Your task to perform on an android device: toggle notifications settings in the gmail app Image 0: 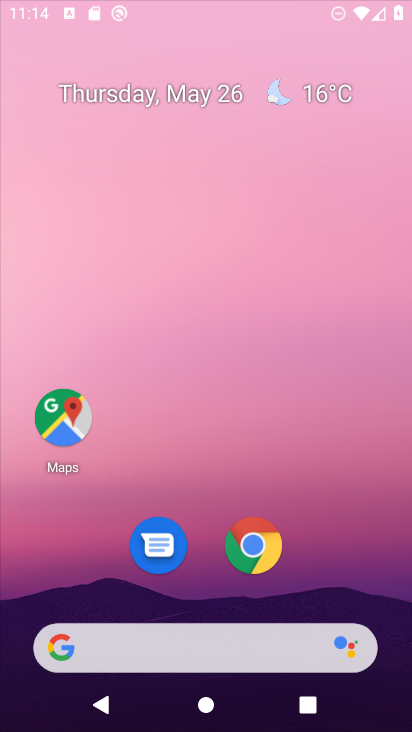
Step 0: press home button
Your task to perform on an android device: toggle notifications settings in the gmail app Image 1: 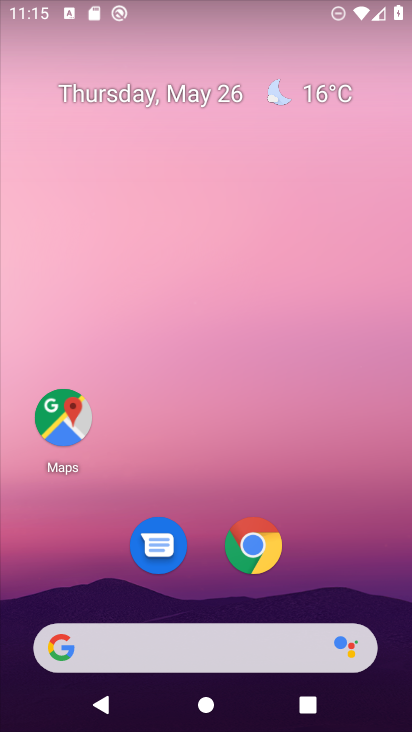
Step 1: drag from (329, 616) to (251, 89)
Your task to perform on an android device: toggle notifications settings in the gmail app Image 2: 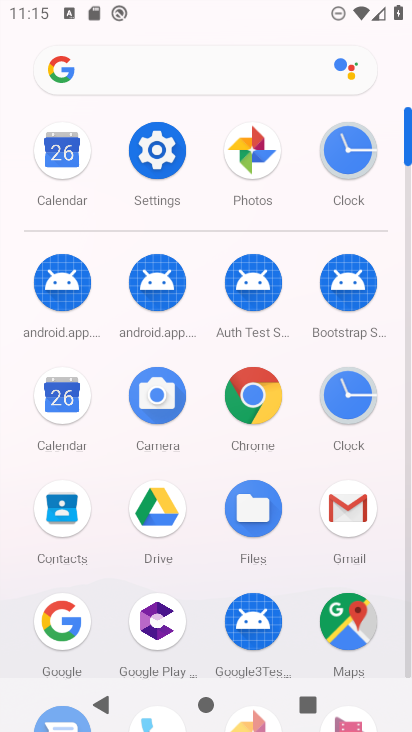
Step 2: click (359, 511)
Your task to perform on an android device: toggle notifications settings in the gmail app Image 3: 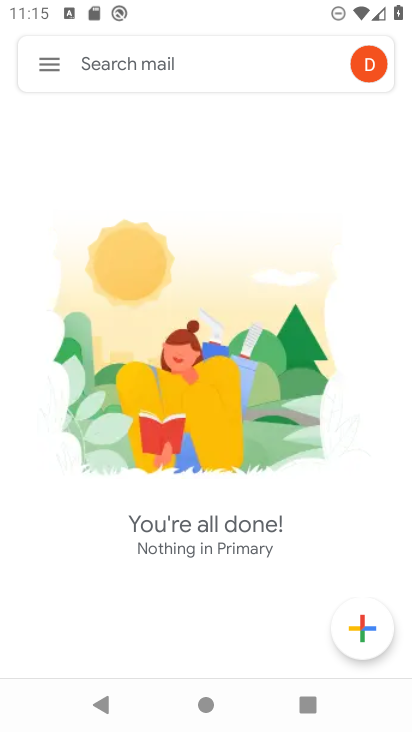
Step 3: click (48, 76)
Your task to perform on an android device: toggle notifications settings in the gmail app Image 4: 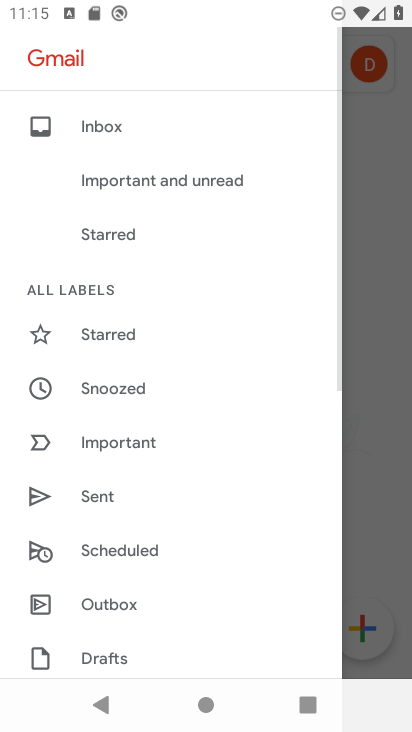
Step 4: drag from (209, 602) to (180, 222)
Your task to perform on an android device: toggle notifications settings in the gmail app Image 5: 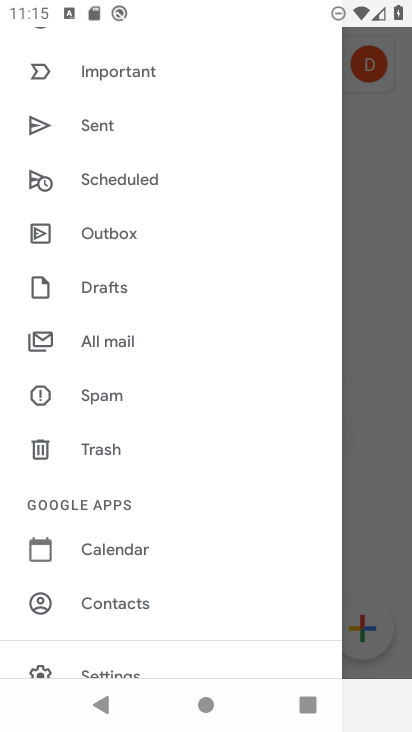
Step 5: click (124, 662)
Your task to perform on an android device: toggle notifications settings in the gmail app Image 6: 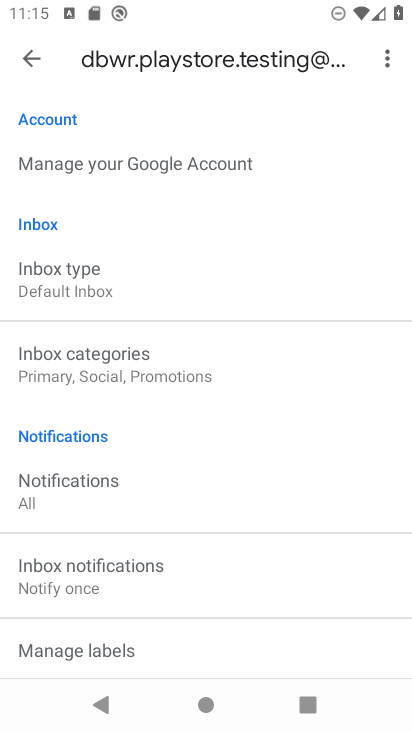
Step 6: click (26, 55)
Your task to perform on an android device: toggle notifications settings in the gmail app Image 7: 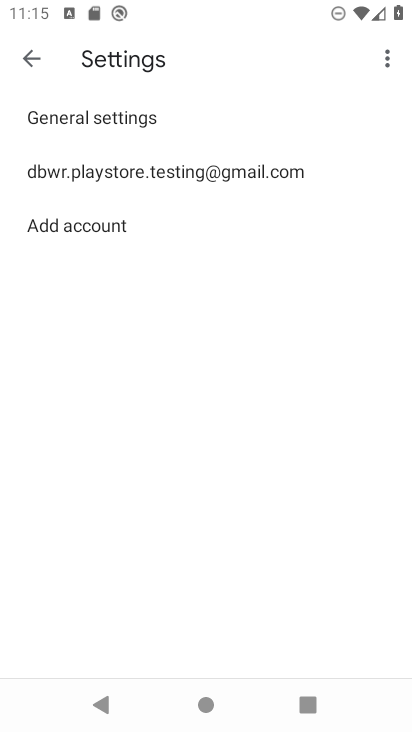
Step 7: click (98, 115)
Your task to perform on an android device: toggle notifications settings in the gmail app Image 8: 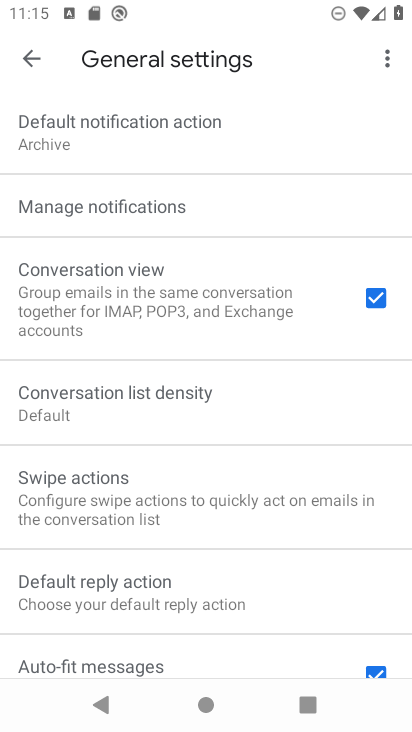
Step 8: click (95, 210)
Your task to perform on an android device: toggle notifications settings in the gmail app Image 9: 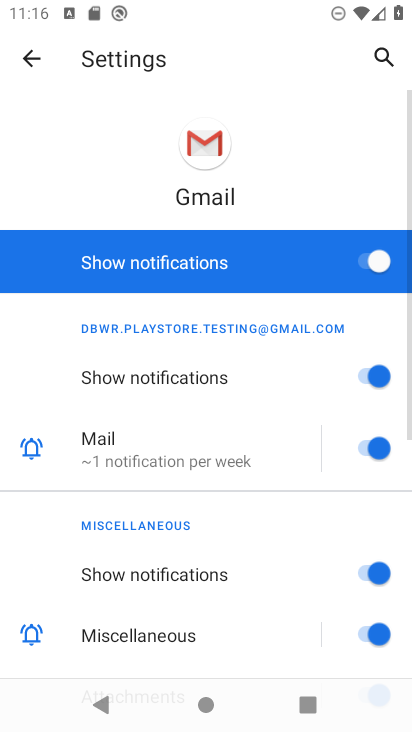
Step 9: click (368, 261)
Your task to perform on an android device: toggle notifications settings in the gmail app Image 10: 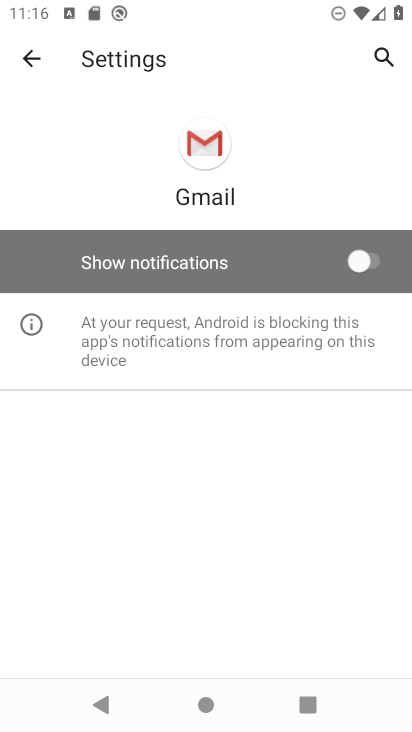
Step 10: task complete